Your task to perform on an android device: open app "Adobe Acrobat Reader" Image 0: 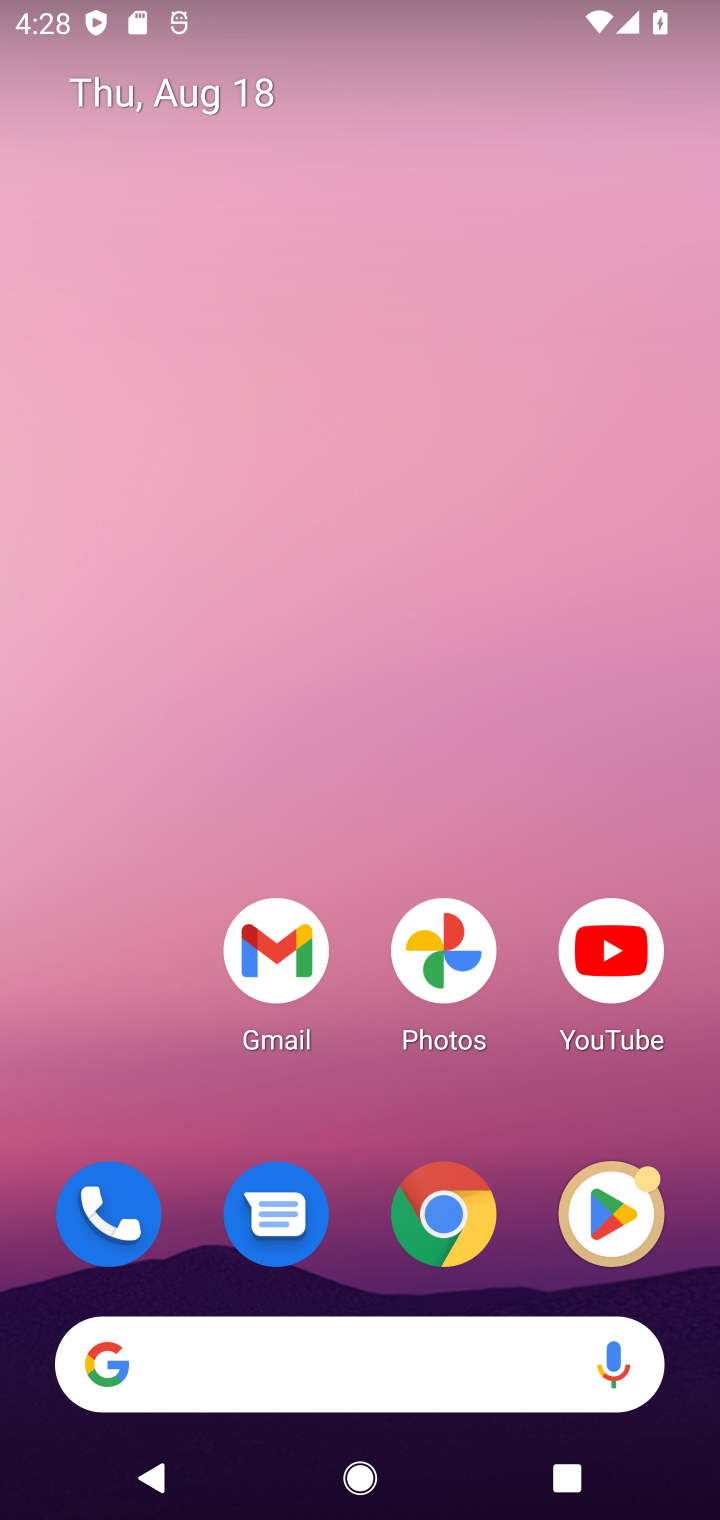
Step 0: click (622, 1220)
Your task to perform on an android device: open app "Adobe Acrobat Reader" Image 1: 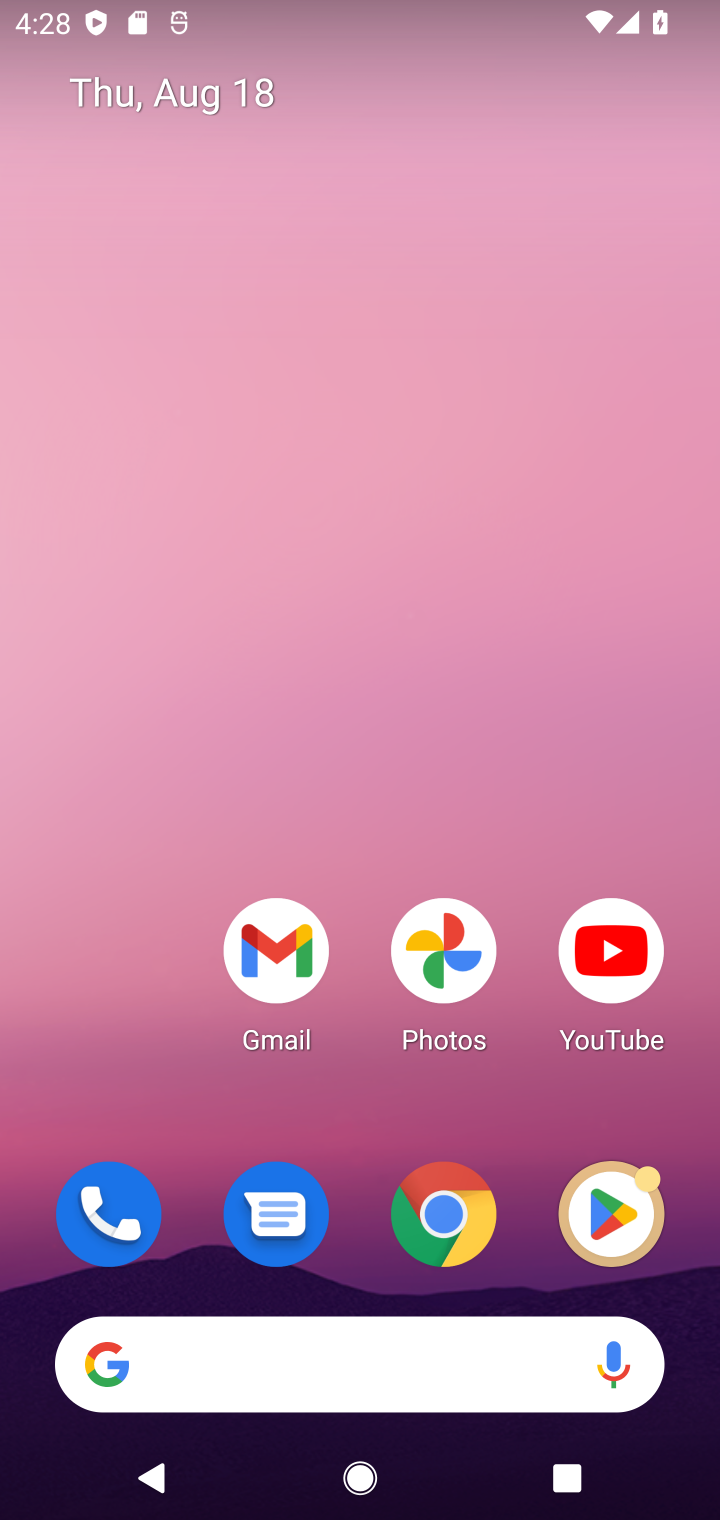
Step 1: drag from (321, 1124) to (386, 212)
Your task to perform on an android device: open app "Adobe Acrobat Reader" Image 2: 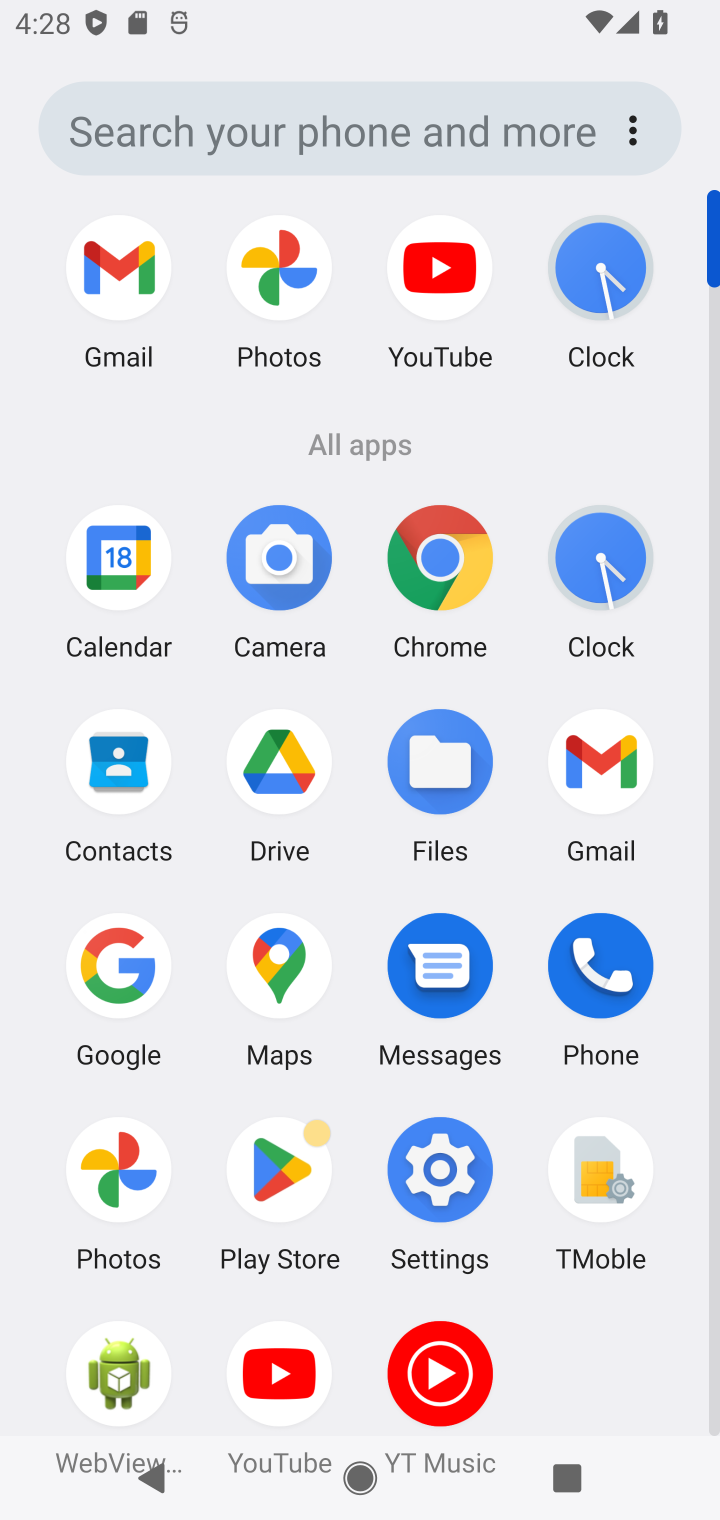
Step 2: click (285, 1151)
Your task to perform on an android device: open app "Adobe Acrobat Reader" Image 3: 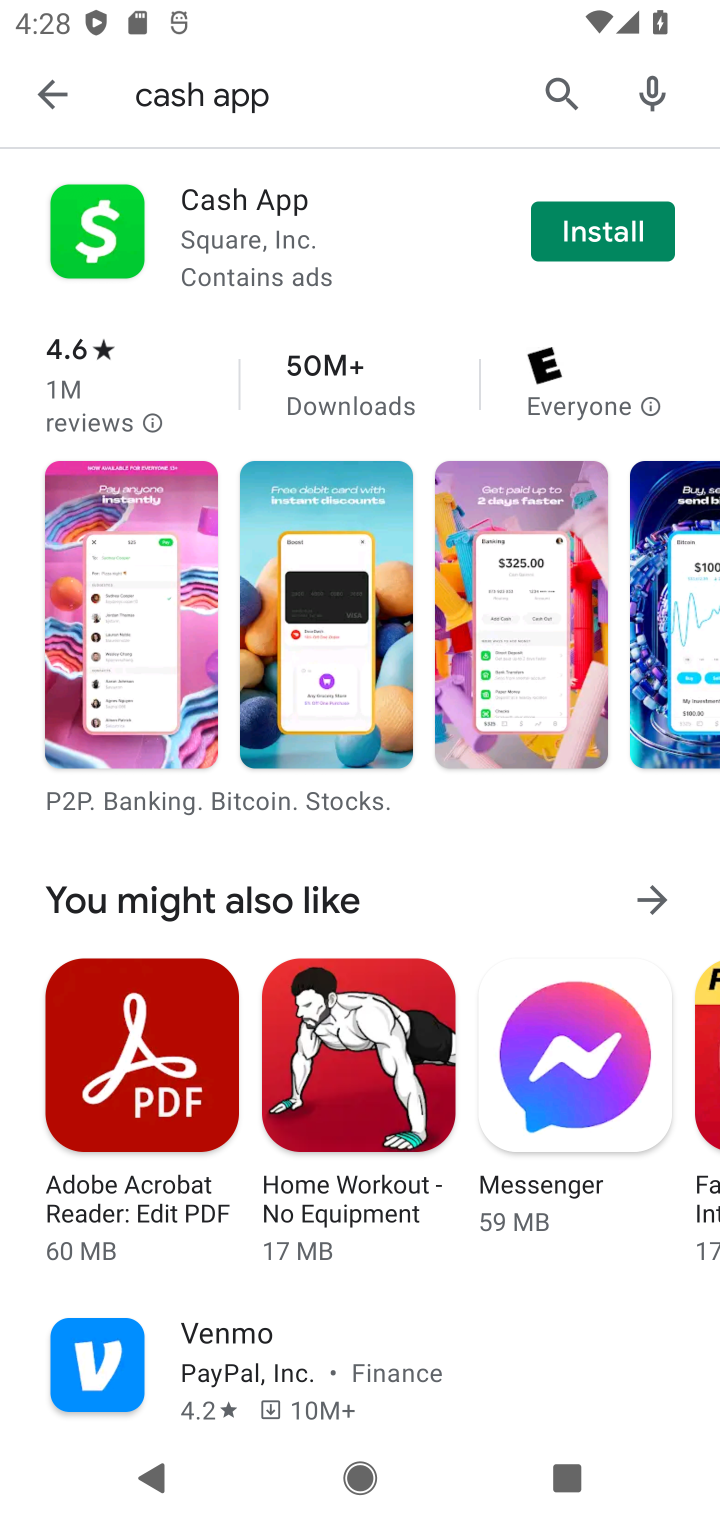
Step 3: click (295, 98)
Your task to perform on an android device: open app "Adobe Acrobat Reader" Image 4: 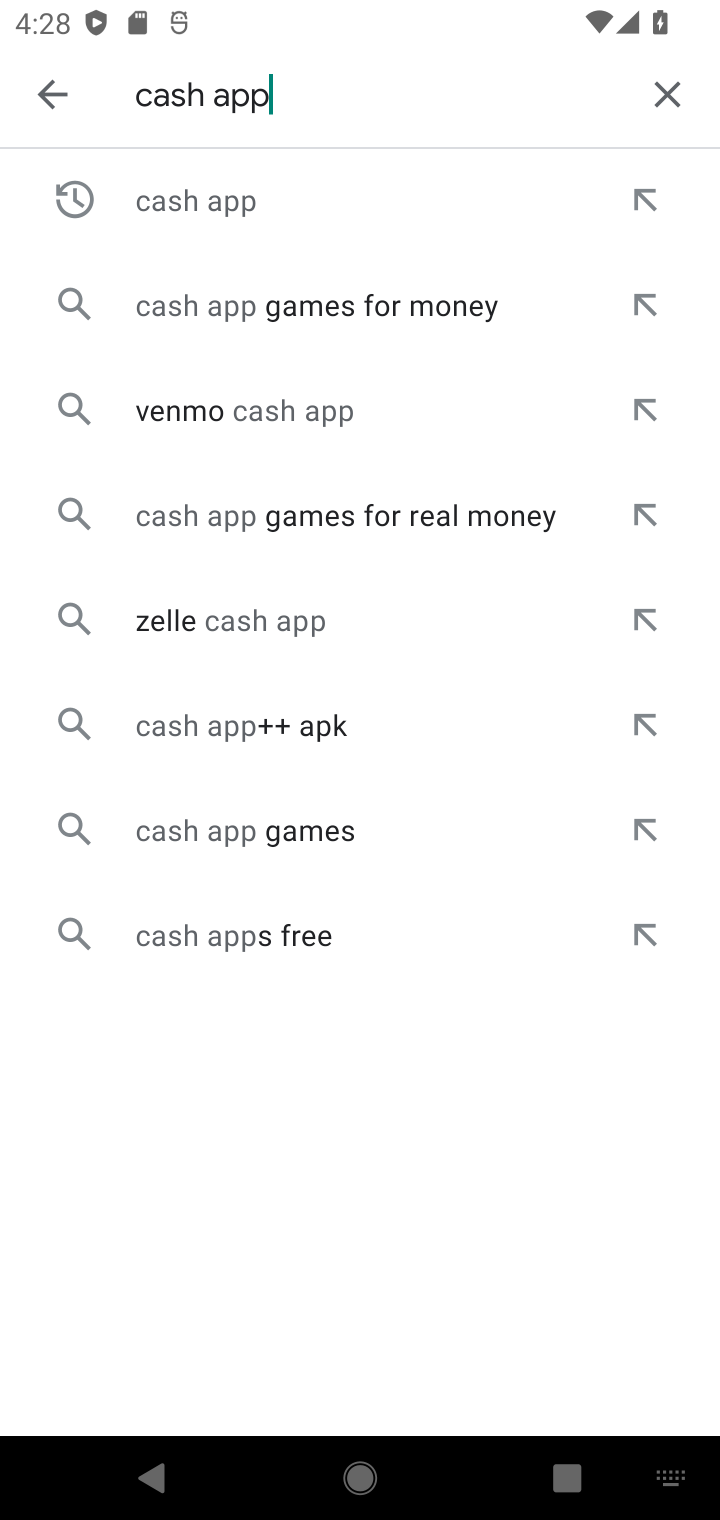
Step 4: click (674, 79)
Your task to perform on an android device: open app "Adobe Acrobat Reader" Image 5: 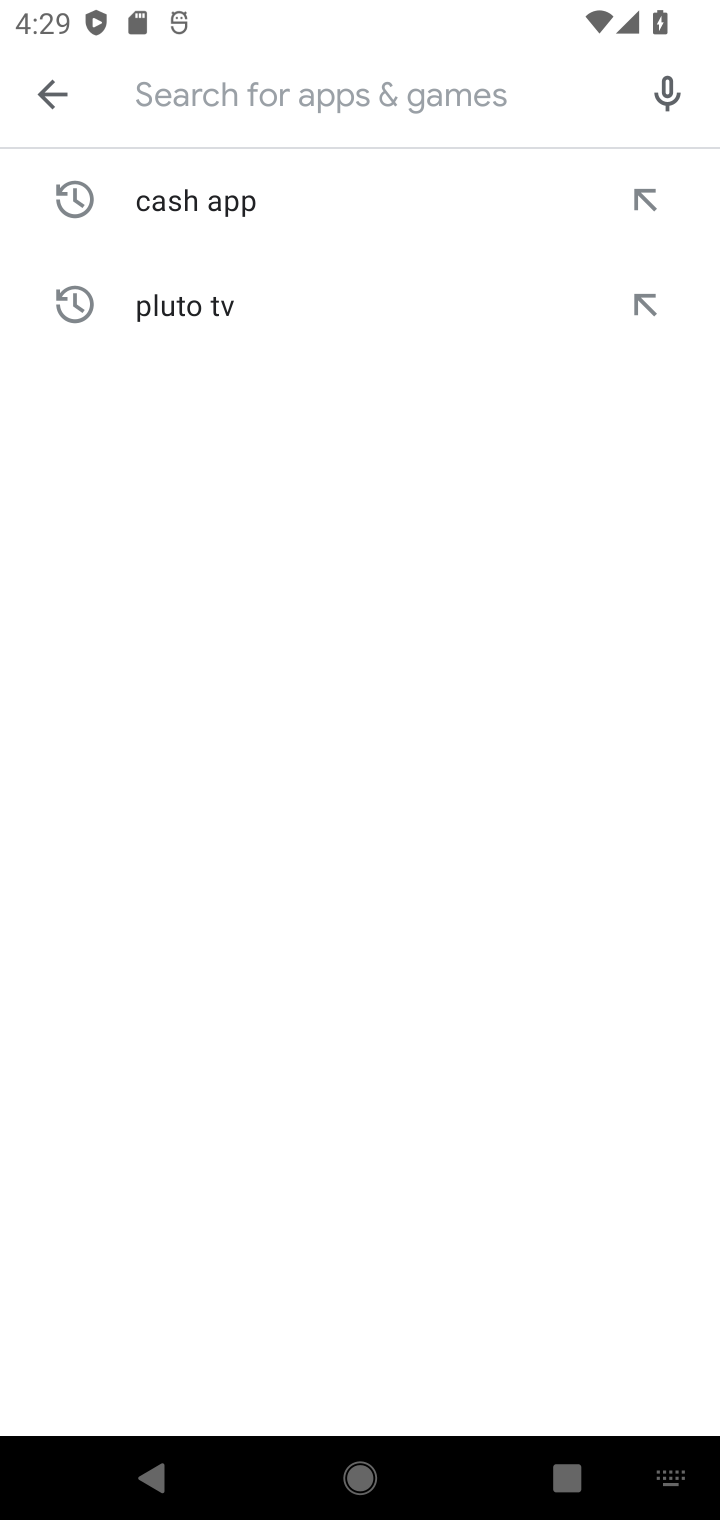
Step 5: type "Adobe Acrobat reader"
Your task to perform on an android device: open app "Adobe Acrobat Reader" Image 6: 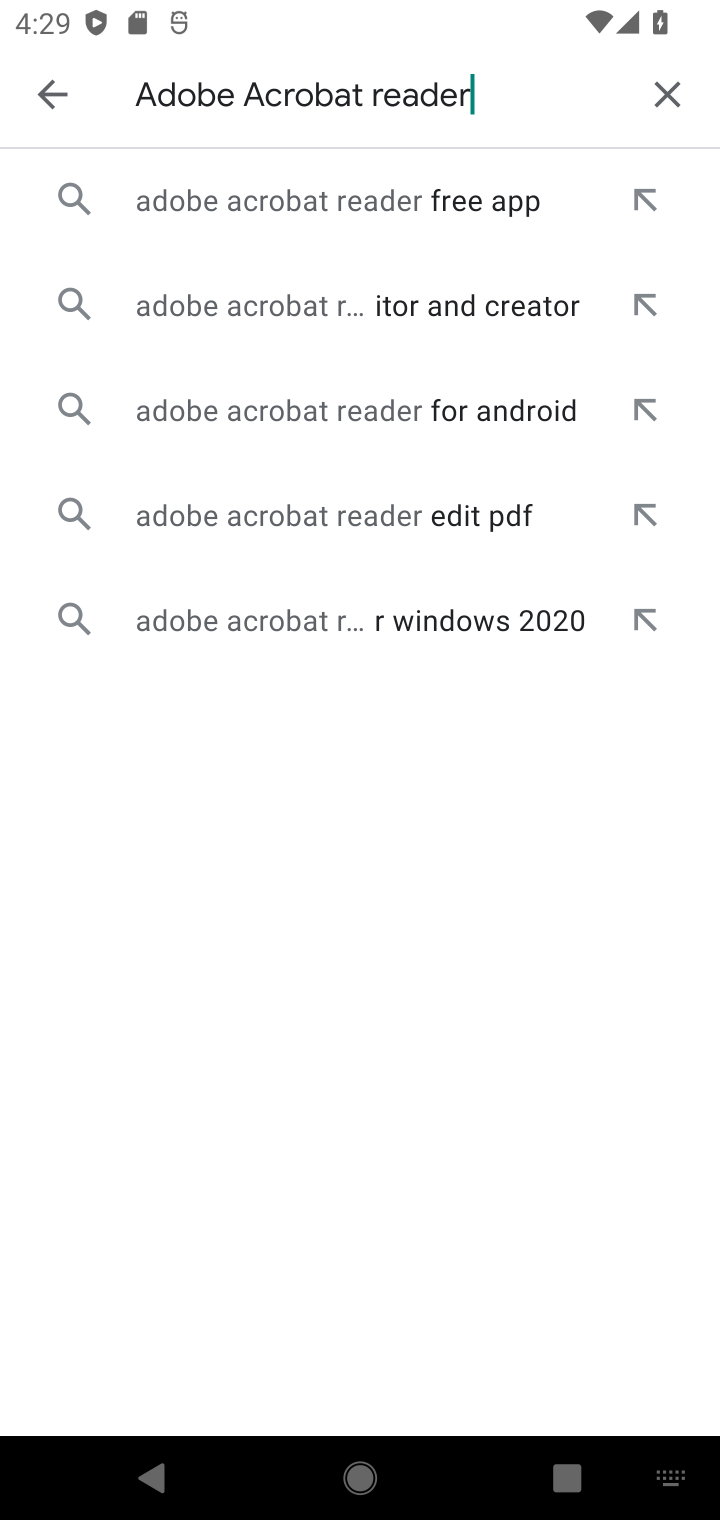
Step 6: click (343, 216)
Your task to perform on an android device: open app "Adobe Acrobat Reader" Image 7: 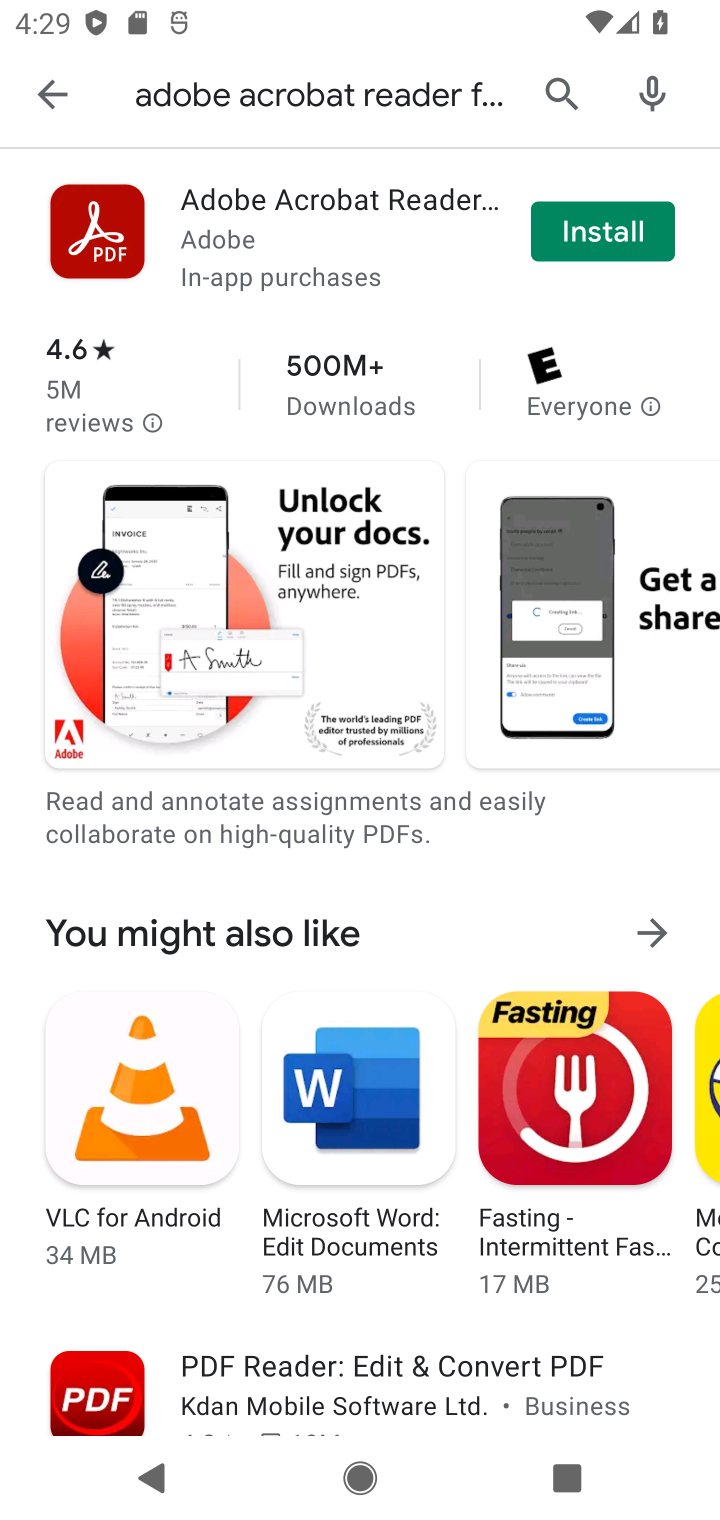
Step 7: task complete